Your task to perform on an android device: turn on improve location accuracy Image 0: 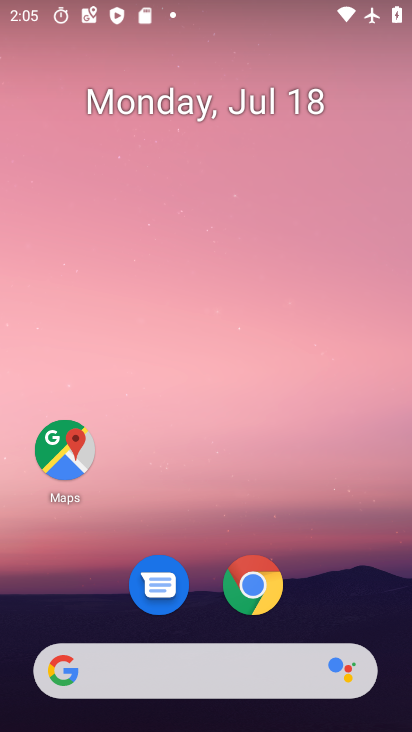
Step 0: press home button
Your task to perform on an android device: turn on improve location accuracy Image 1: 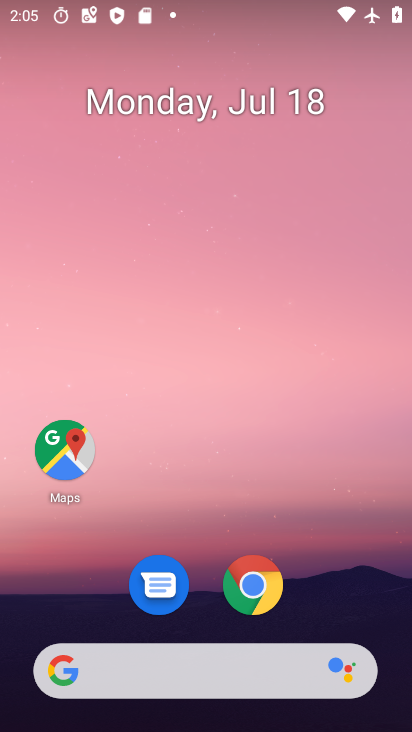
Step 1: drag from (161, 667) to (313, 161)
Your task to perform on an android device: turn on improve location accuracy Image 2: 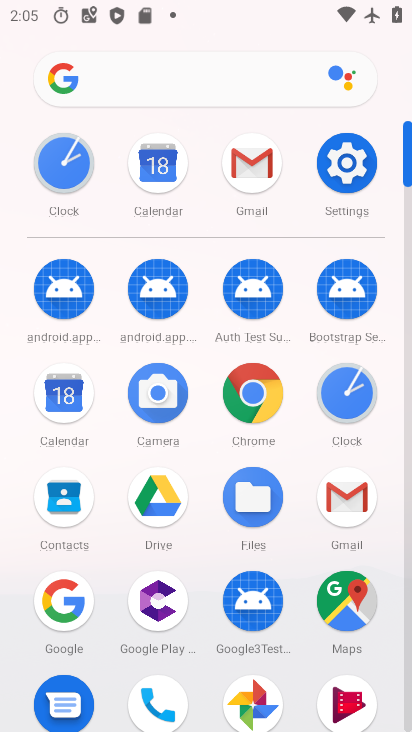
Step 2: click (339, 172)
Your task to perform on an android device: turn on improve location accuracy Image 3: 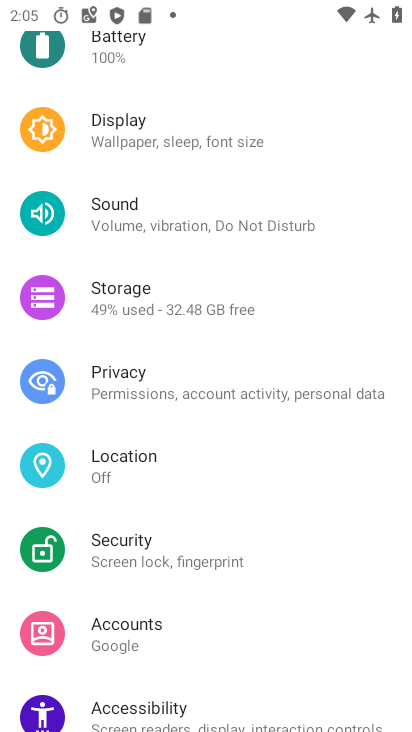
Step 3: click (120, 480)
Your task to perform on an android device: turn on improve location accuracy Image 4: 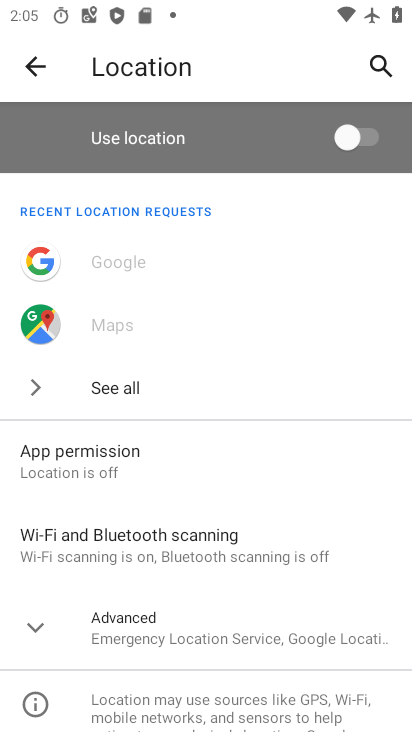
Step 4: click (144, 624)
Your task to perform on an android device: turn on improve location accuracy Image 5: 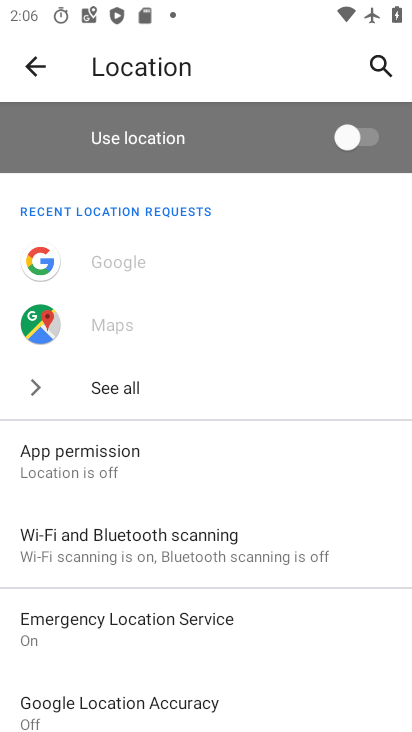
Step 5: drag from (241, 583) to (336, 167)
Your task to perform on an android device: turn on improve location accuracy Image 6: 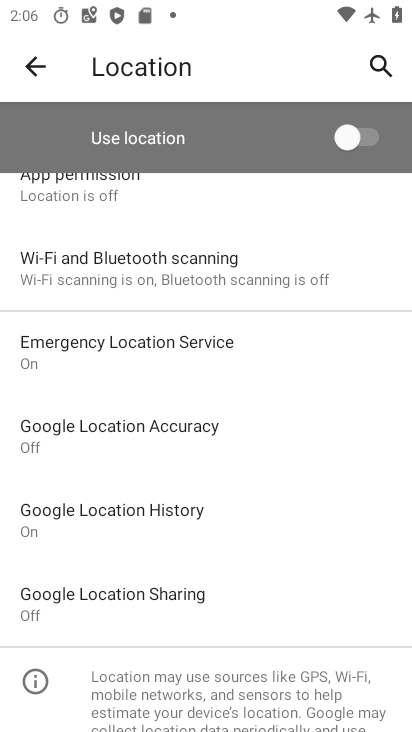
Step 6: click (142, 429)
Your task to perform on an android device: turn on improve location accuracy Image 7: 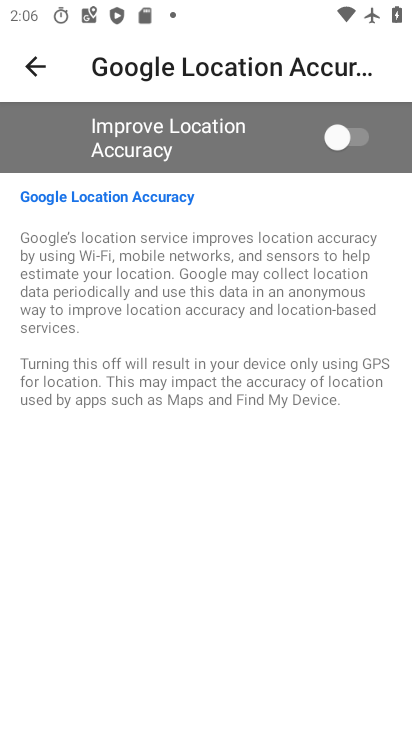
Step 7: click (361, 138)
Your task to perform on an android device: turn on improve location accuracy Image 8: 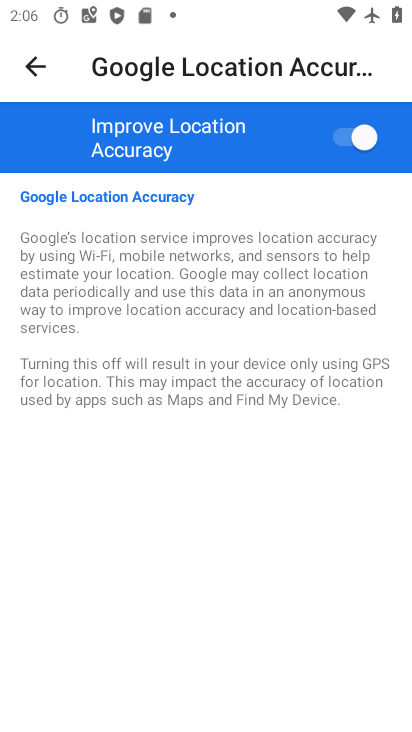
Step 8: task complete